Your task to perform on an android device: Open battery settings Image 0: 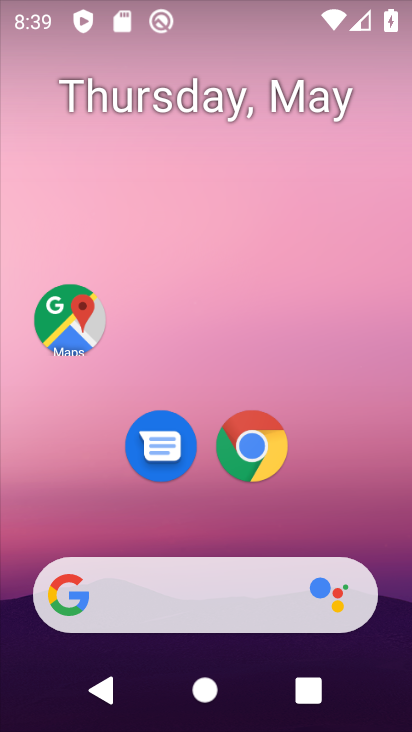
Step 0: drag from (394, 607) to (340, 41)
Your task to perform on an android device: Open battery settings Image 1: 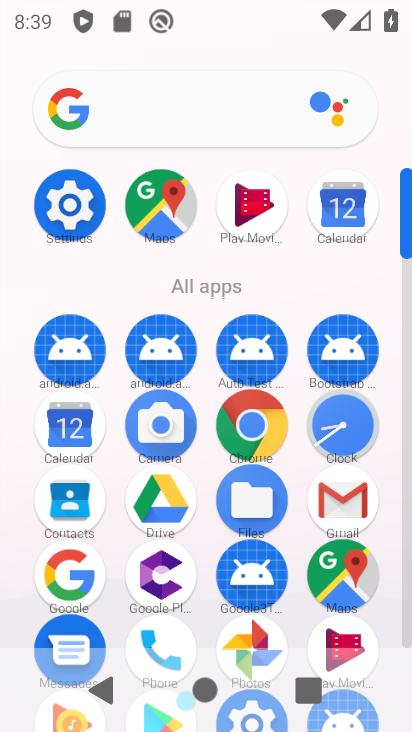
Step 1: click (405, 630)
Your task to perform on an android device: Open battery settings Image 2: 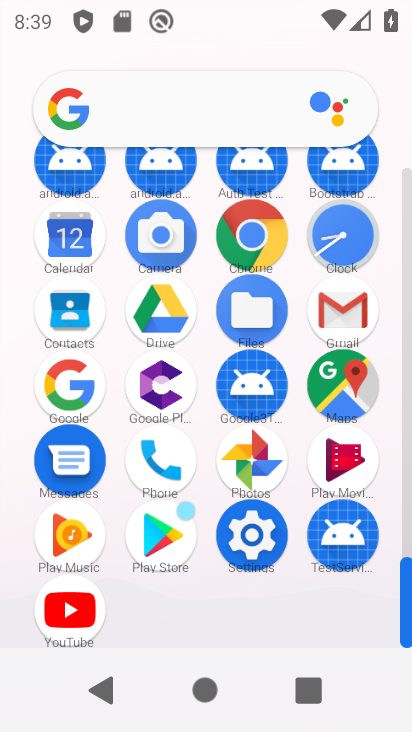
Step 2: click (254, 535)
Your task to perform on an android device: Open battery settings Image 3: 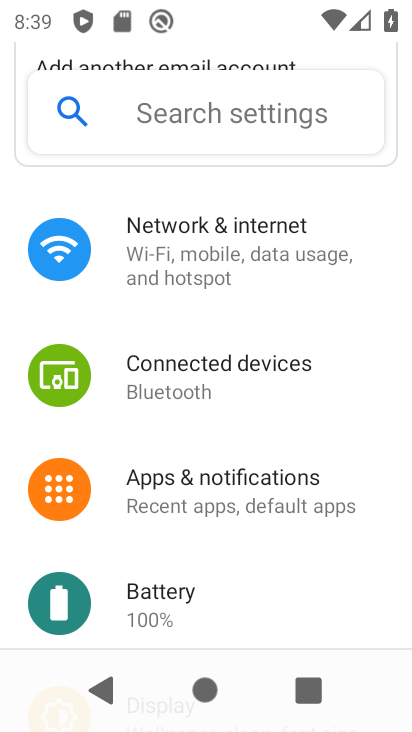
Step 3: drag from (203, 572) to (255, 213)
Your task to perform on an android device: Open battery settings Image 4: 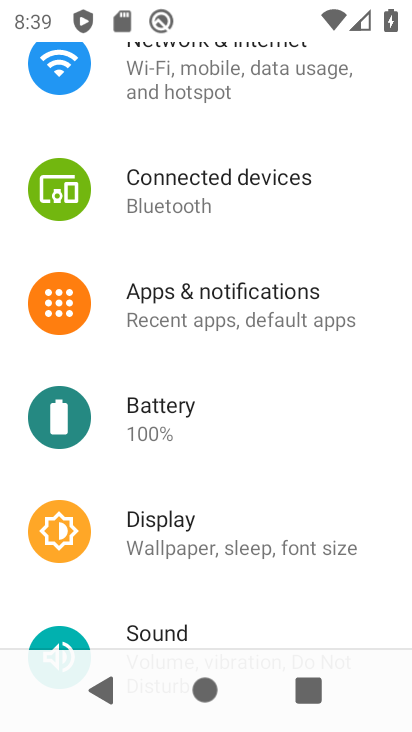
Step 4: click (147, 416)
Your task to perform on an android device: Open battery settings Image 5: 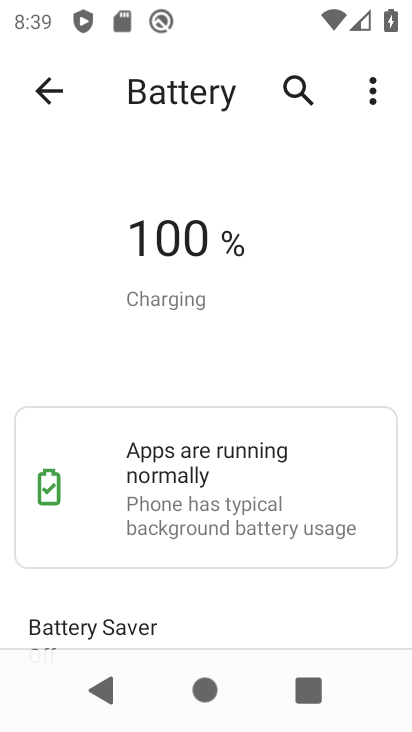
Step 5: task complete